Your task to perform on an android device: toggle notification dots Image 0: 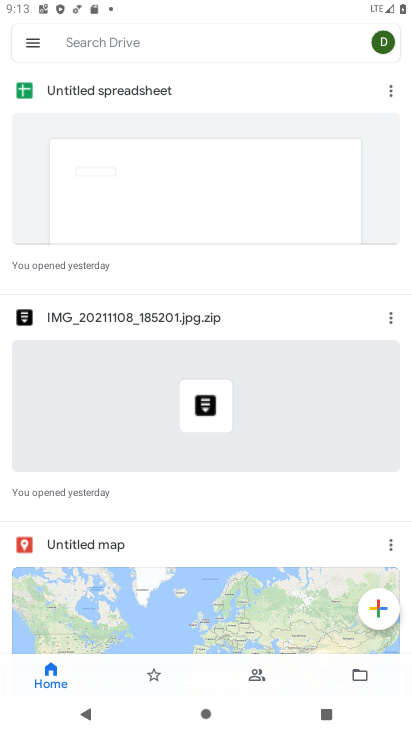
Step 0: press home button
Your task to perform on an android device: toggle notification dots Image 1: 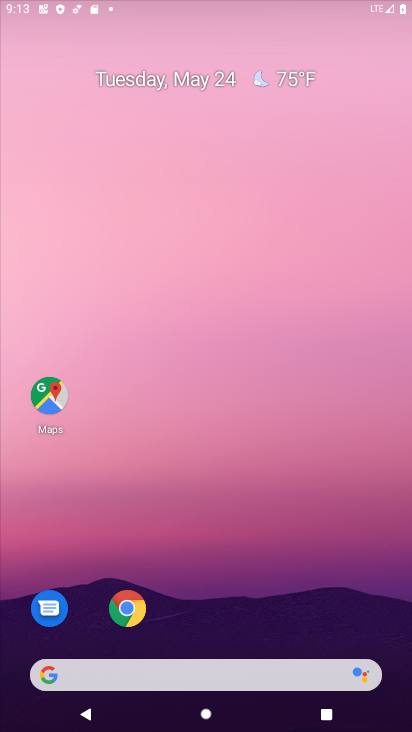
Step 1: drag from (292, 412) to (225, 49)
Your task to perform on an android device: toggle notification dots Image 2: 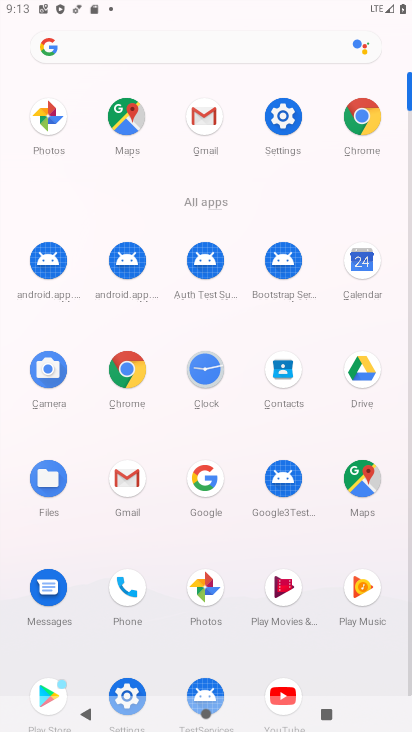
Step 2: click (278, 125)
Your task to perform on an android device: toggle notification dots Image 3: 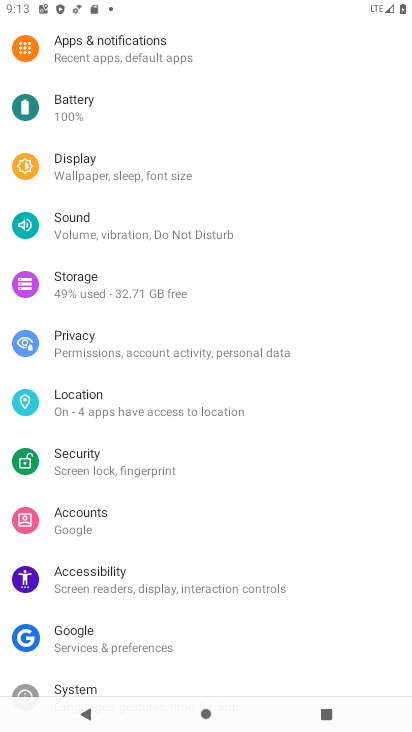
Step 3: click (190, 50)
Your task to perform on an android device: toggle notification dots Image 4: 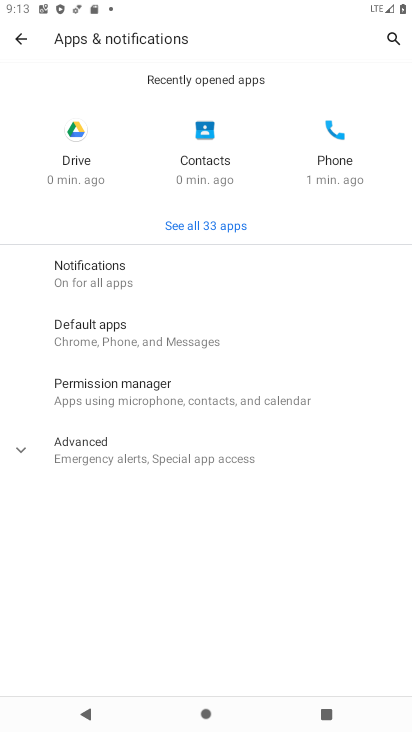
Step 4: click (171, 276)
Your task to perform on an android device: toggle notification dots Image 5: 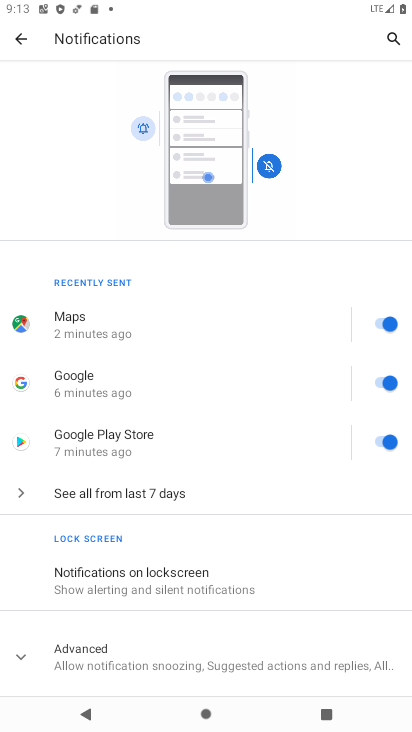
Step 5: drag from (267, 557) to (230, 147)
Your task to perform on an android device: toggle notification dots Image 6: 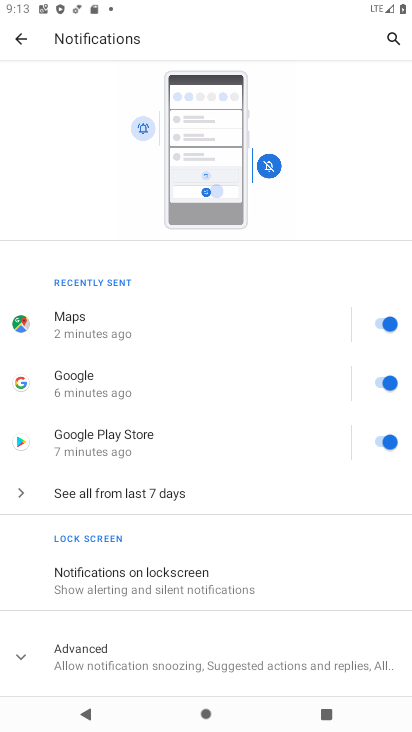
Step 6: click (184, 638)
Your task to perform on an android device: toggle notification dots Image 7: 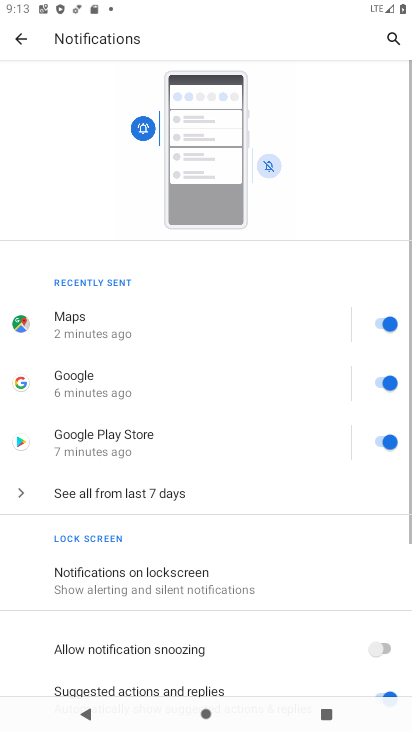
Step 7: drag from (233, 635) to (259, 158)
Your task to perform on an android device: toggle notification dots Image 8: 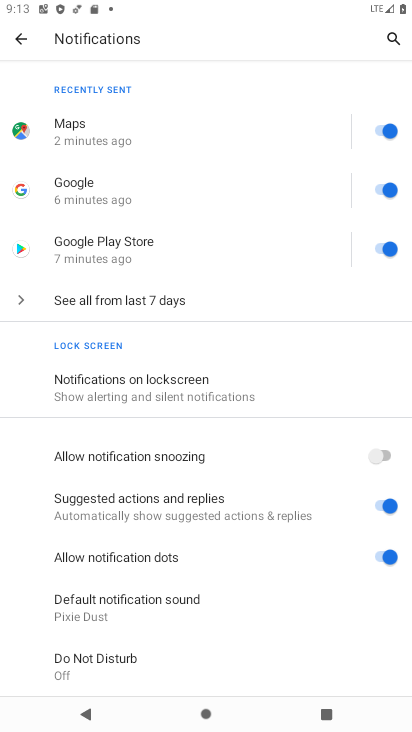
Step 8: click (384, 559)
Your task to perform on an android device: toggle notification dots Image 9: 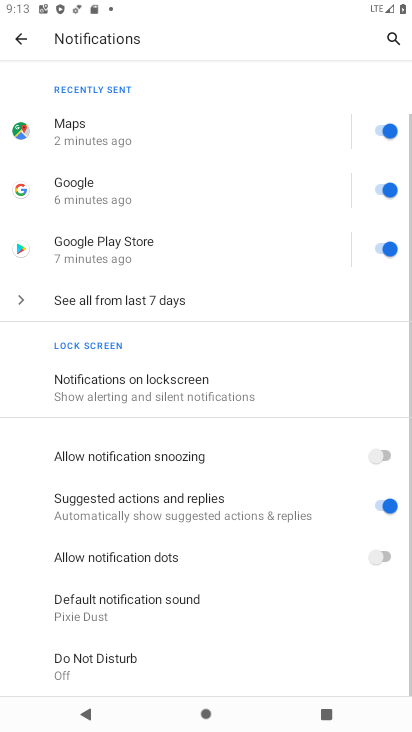
Step 9: task complete